Your task to perform on an android device: Open the calendar and show me this week's events? Image 0: 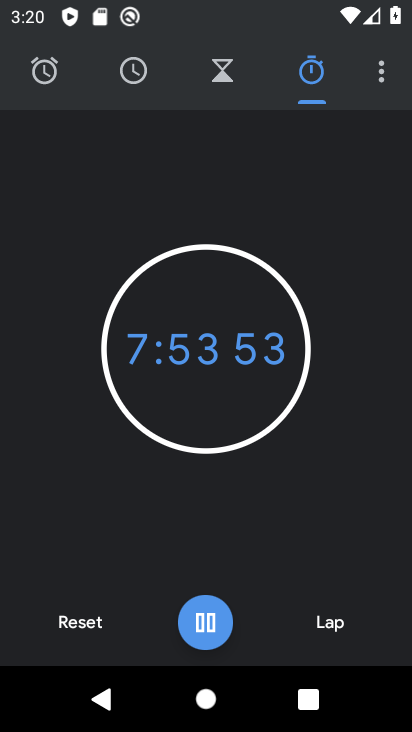
Step 0: press home button
Your task to perform on an android device: Open the calendar and show me this week's events? Image 1: 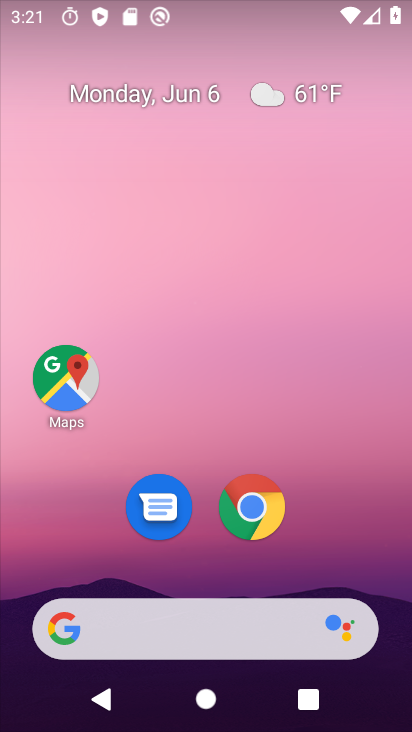
Step 1: drag from (188, 572) to (200, 215)
Your task to perform on an android device: Open the calendar and show me this week's events? Image 2: 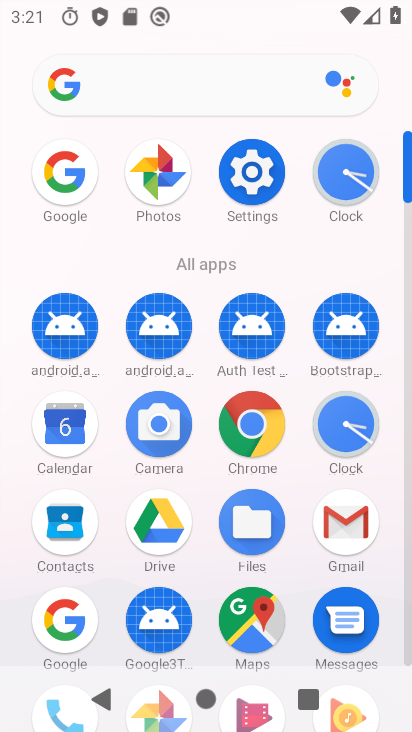
Step 2: click (82, 435)
Your task to perform on an android device: Open the calendar and show me this week's events? Image 3: 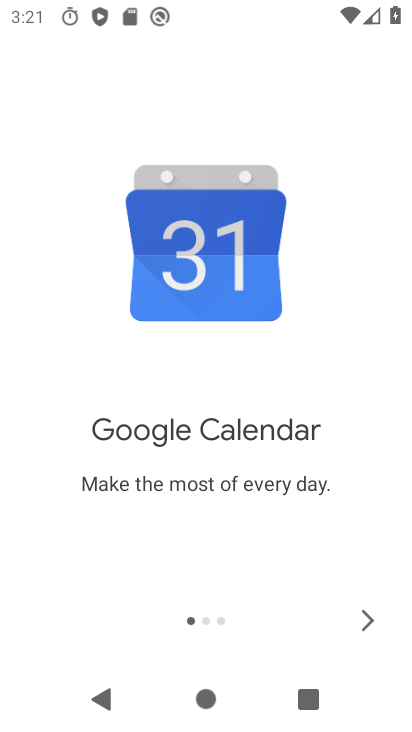
Step 3: click (351, 614)
Your task to perform on an android device: Open the calendar and show me this week's events? Image 4: 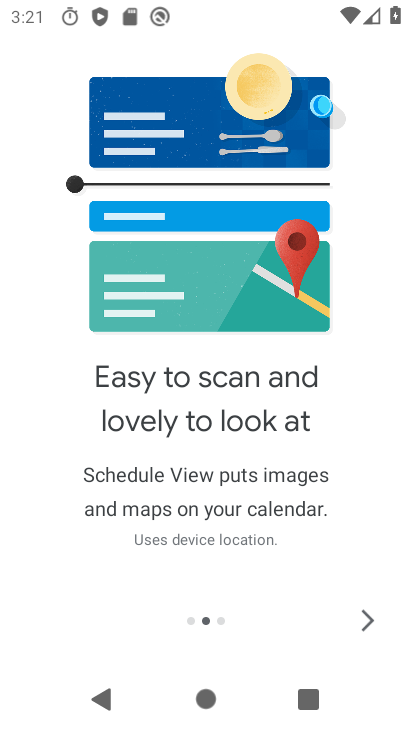
Step 4: click (352, 614)
Your task to perform on an android device: Open the calendar and show me this week's events? Image 5: 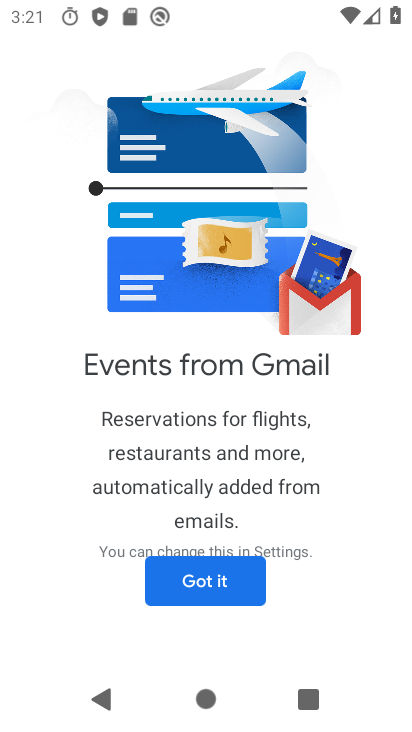
Step 5: click (232, 579)
Your task to perform on an android device: Open the calendar and show me this week's events? Image 6: 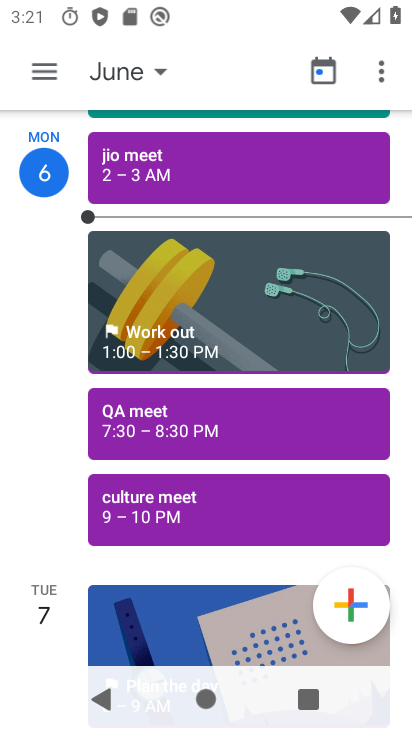
Step 6: click (147, 82)
Your task to perform on an android device: Open the calendar and show me this week's events? Image 7: 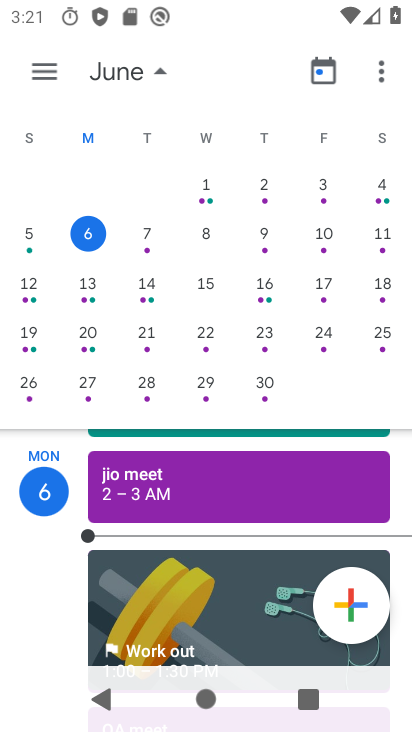
Step 7: click (207, 235)
Your task to perform on an android device: Open the calendar and show me this week's events? Image 8: 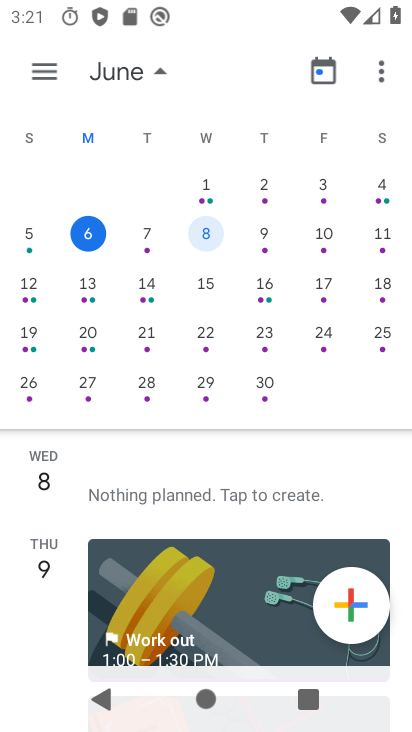
Step 8: drag from (237, 567) to (275, 368)
Your task to perform on an android device: Open the calendar and show me this week's events? Image 9: 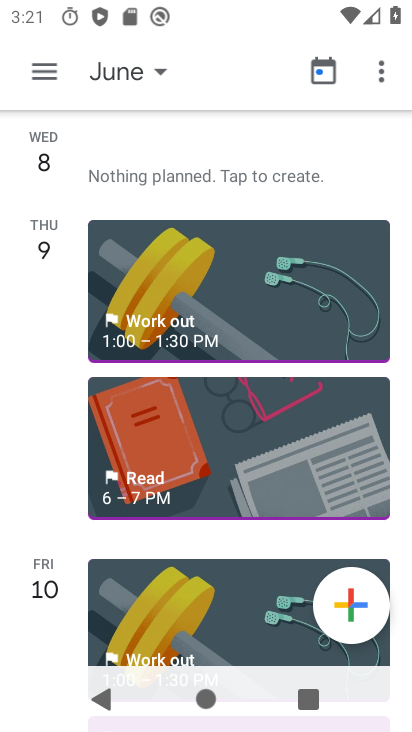
Step 9: drag from (235, 579) to (257, 377)
Your task to perform on an android device: Open the calendar and show me this week's events? Image 10: 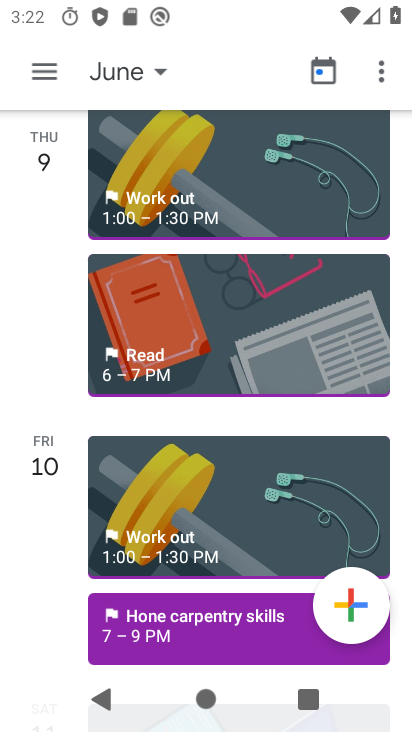
Step 10: drag from (227, 455) to (246, 282)
Your task to perform on an android device: Open the calendar and show me this week's events? Image 11: 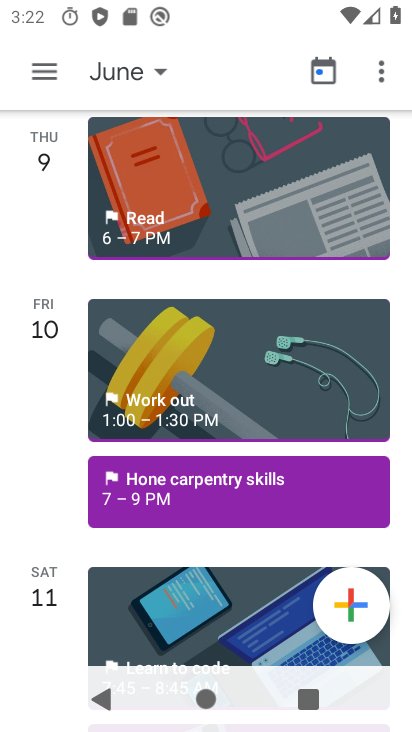
Step 11: click (152, 71)
Your task to perform on an android device: Open the calendar and show me this week's events? Image 12: 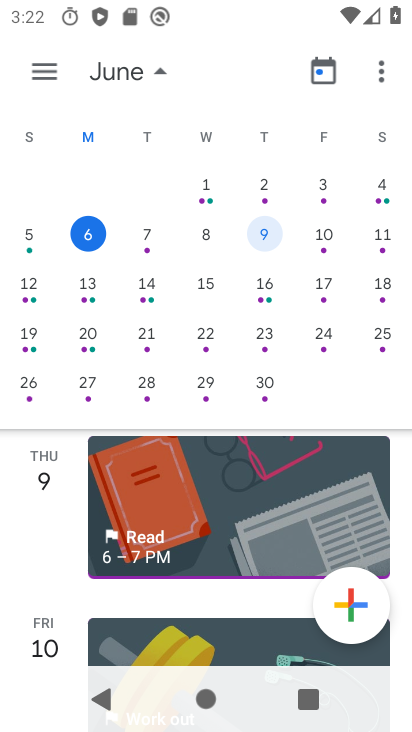
Step 12: task complete